Your task to perform on an android device: Open Google Chrome and open the bookmarks view Image 0: 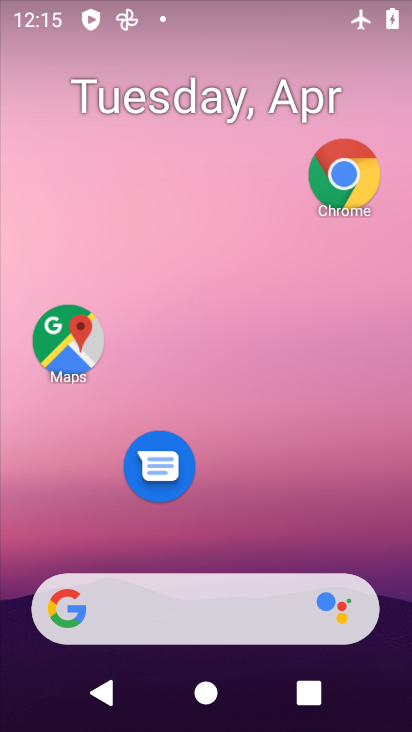
Step 0: click (339, 195)
Your task to perform on an android device: Open Google Chrome and open the bookmarks view Image 1: 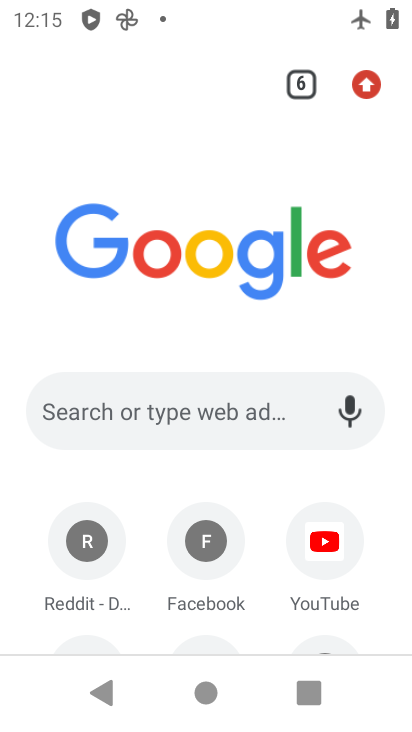
Step 1: click (364, 72)
Your task to perform on an android device: Open Google Chrome and open the bookmarks view Image 2: 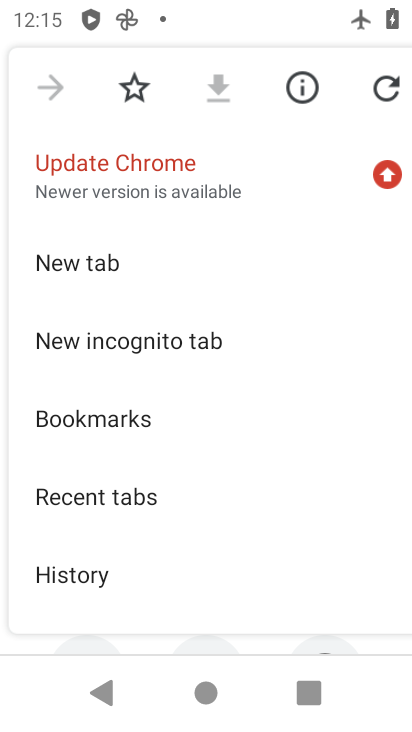
Step 2: click (145, 424)
Your task to perform on an android device: Open Google Chrome and open the bookmarks view Image 3: 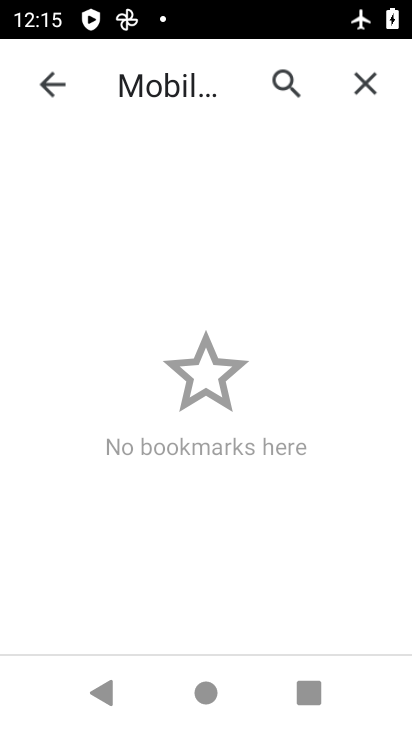
Step 3: task complete